Your task to perform on an android device: Open internet settings Image 0: 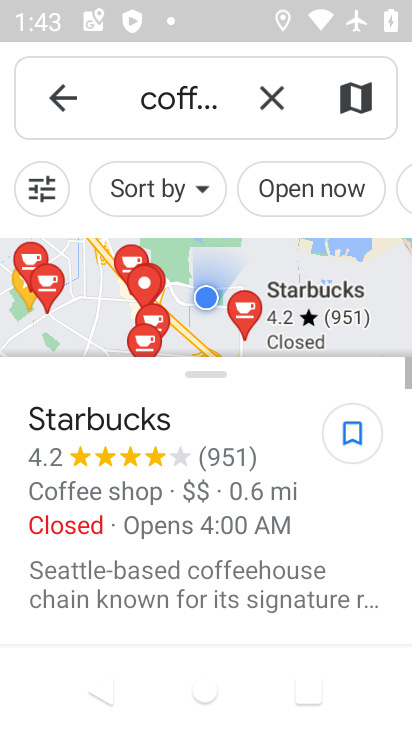
Step 0: press home button
Your task to perform on an android device: Open internet settings Image 1: 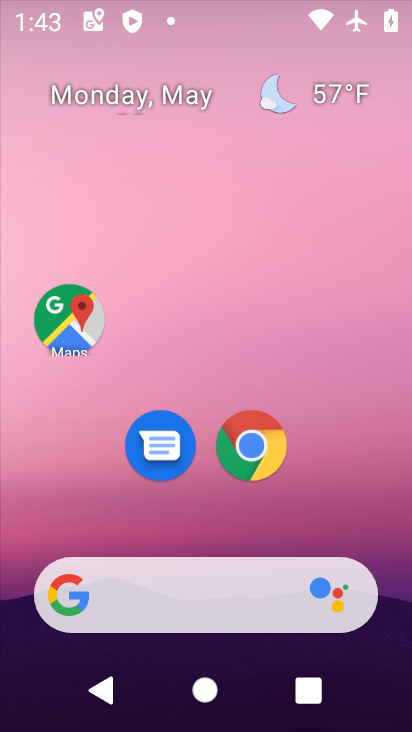
Step 1: drag from (231, 506) to (235, 83)
Your task to perform on an android device: Open internet settings Image 2: 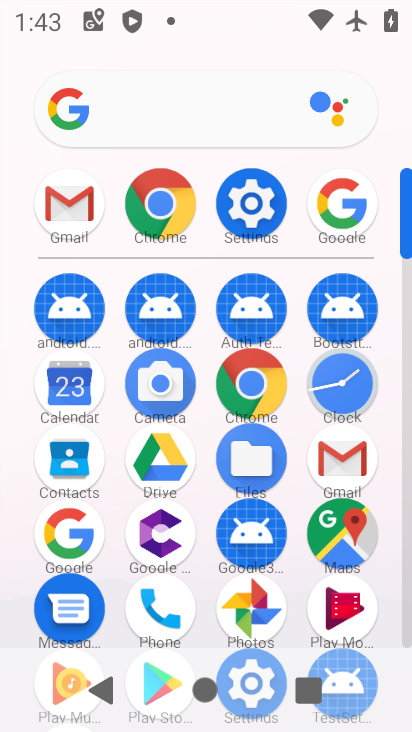
Step 2: click (248, 202)
Your task to perform on an android device: Open internet settings Image 3: 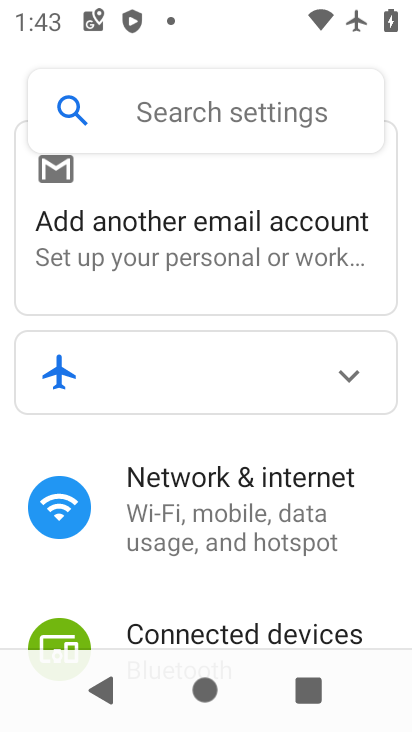
Step 3: click (221, 520)
Your task to perform on an android device: Open internet settings Image 4: 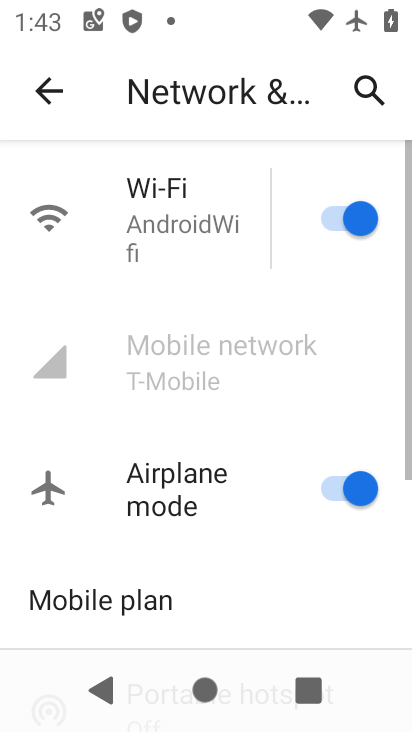
Step 4: click (187, 193)
Your task to perform on an android device: Open internet settings Image 5: 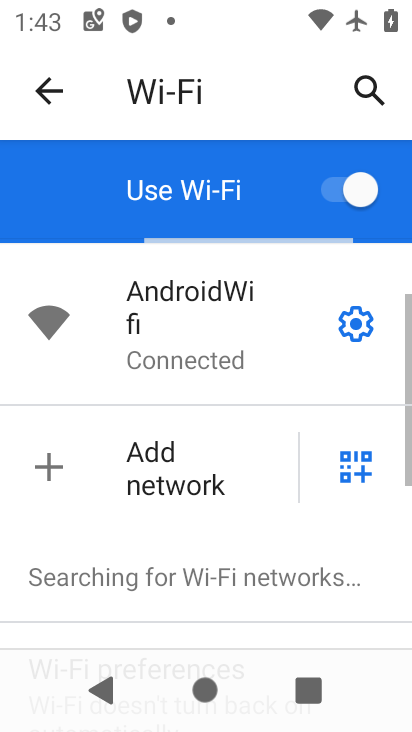
Step 5: click (333, 331)
Your task to perform on an android device: Open internet settings Image 6: 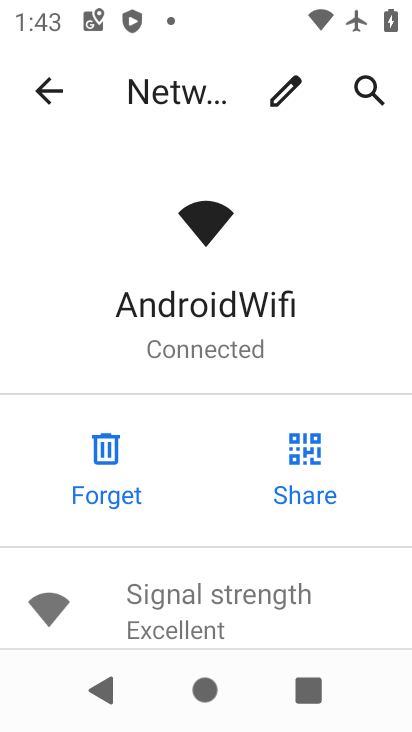
Step 6: task complete